Your task to perform on an android device: change the clock display to digital Image 0: 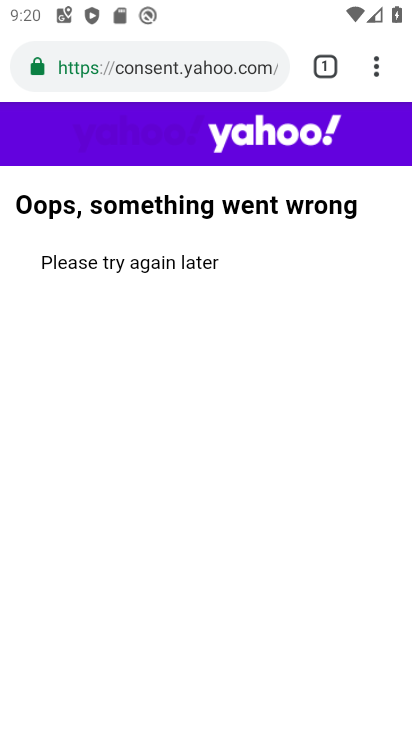
Step 0: press home button
Your task to perform on an android device: change the clock display to digital Image 1: 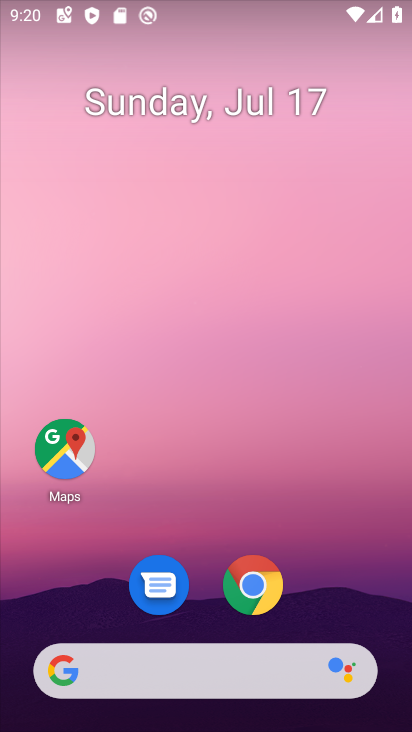
Step 1: drag from (302, 555) to (237, 45)
Your task to perform on an android device: change the clock display to digital Image 2: 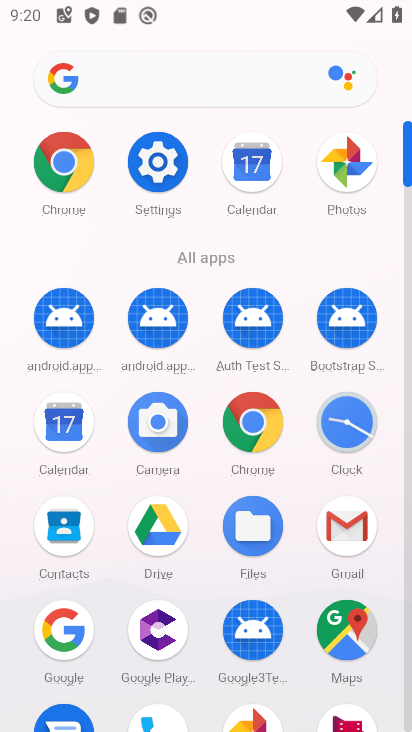
Step 2: click (342, 428)
Your task to perform on an android device: change the clock display to digital Image 3: 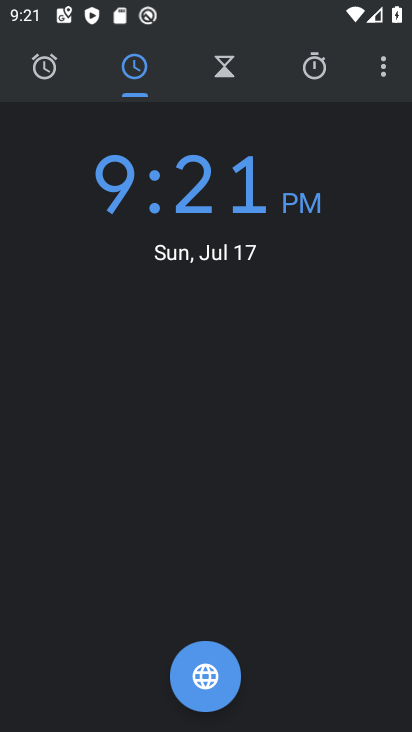
Step 3: click (380, 60)
Your task to perform on an android device: change the clock display to digital Image 4: 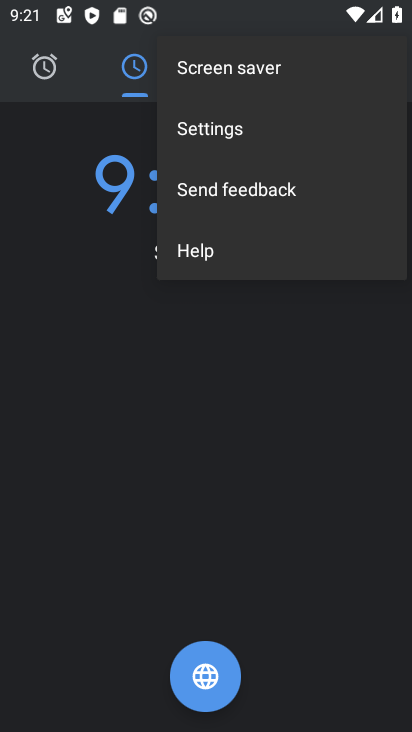
Step 4: click (297, 138)
Your task to perform on an android device: change the clock display to digital Image 5: 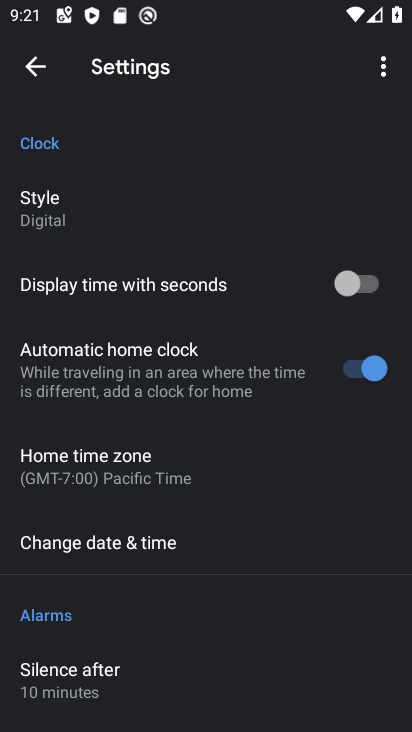
Step 5: click (33, 62)
Your task to perform on an android device: change the clock display to digital Image 6: 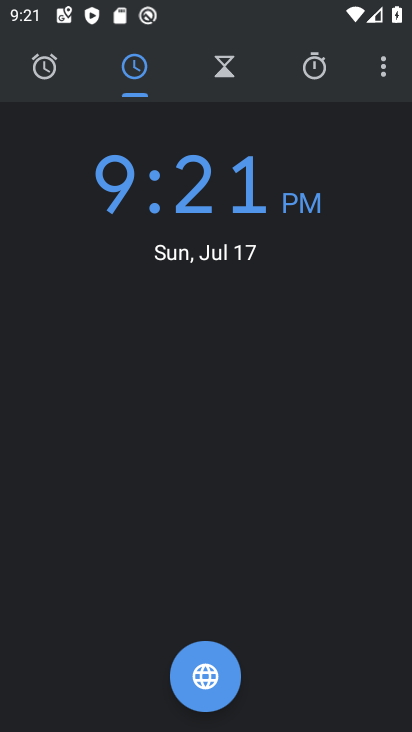
Step 6: task complete